Your task to perform on an android device: Is it going to rain tomorrow? Image 0: 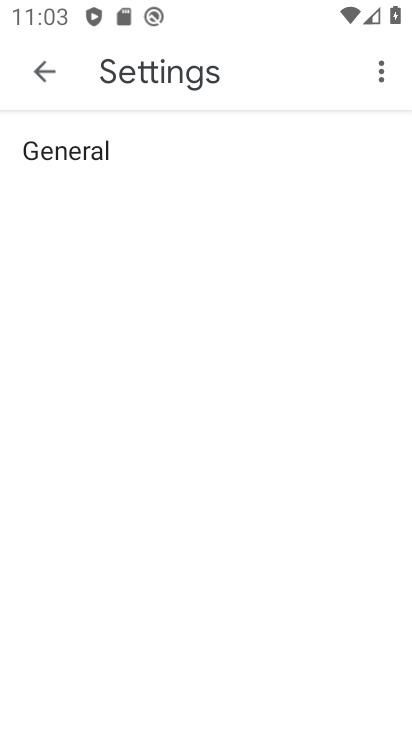
Step 0: press home button
Your task to perform on an android device: Is it going to rain tomorrow? Image 1: 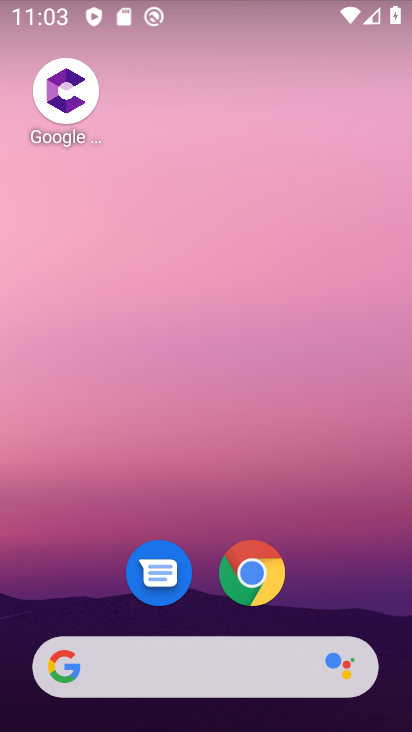
Step 1: click (267, 585)
Your task to perform on an android device: Is it going to rain tomorrow? Image 2: 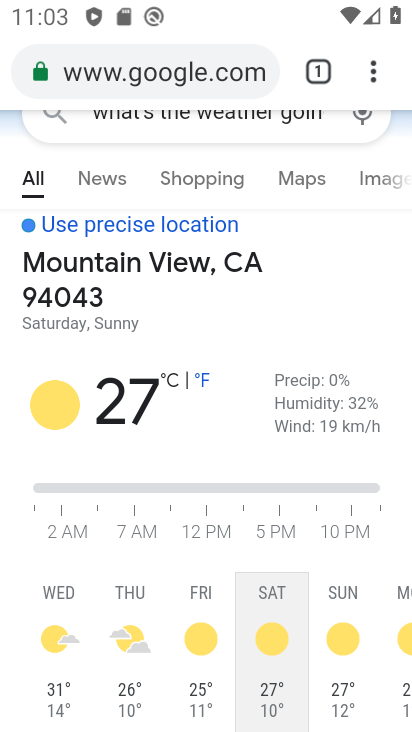
Step 2: click (306, 117)
Your task to perform on an android device: Is it going to rain tomorrow? Image 3: 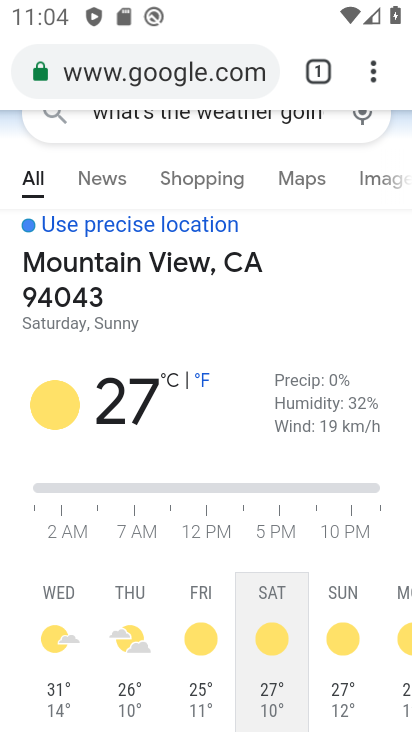
Step 3: click (306, 117)
Your task to perform on an android device: Is it going to rain tomorrow? Image 4: 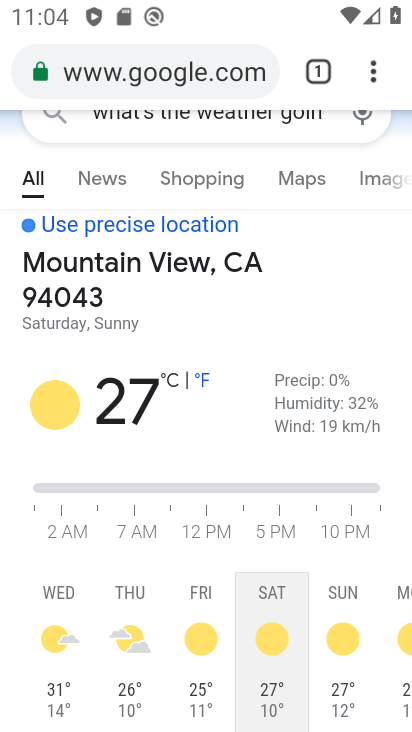
Step 4: click (233, 115)
Your task to perform on an android device: Is it going to rain tomorrow? Image 5: 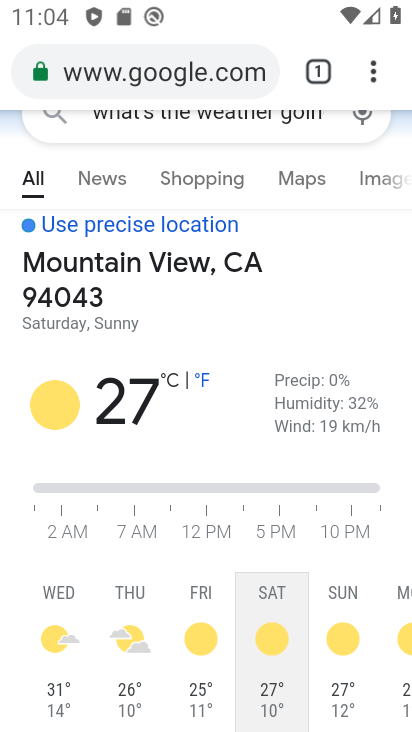
Step 5: drag from (269, 177) to (280, 494)
Your task to perform on an android device: Is it going to rain tomorrow? Image 6: 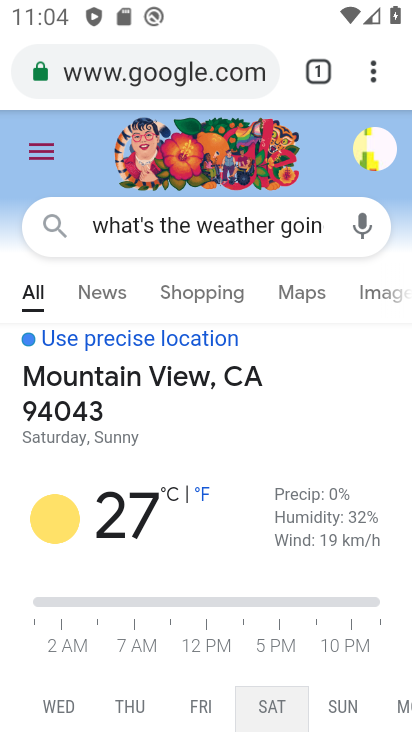
Step 6: click (190, 228)
Your task to perform on an android device: Is it going to rain tomorrow? Image 7: 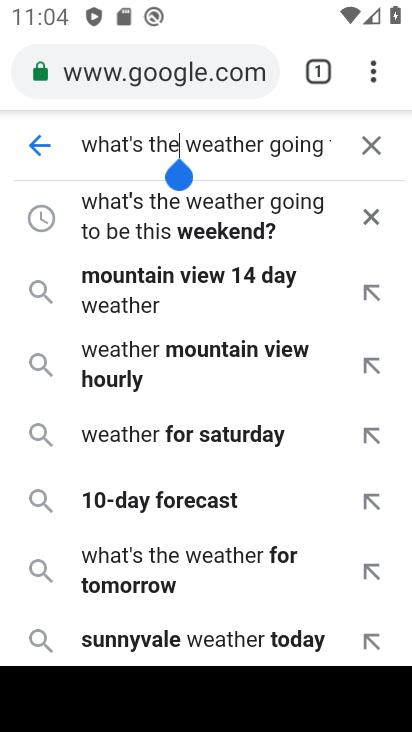
Step 7: click (373, 146)
Your task to perform on an android device: Is it going to rain tomorrow? Image 8: 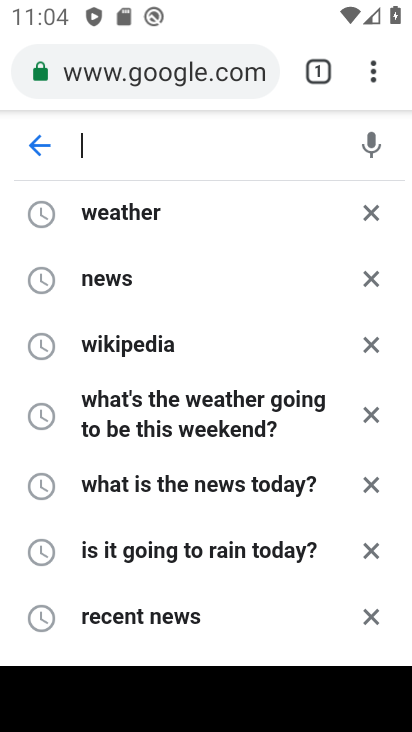
Step 8: type "Is it going to rain tomorrow?"
Your task to perform on an android device: Is it going to rain tomorrow? Image 9: 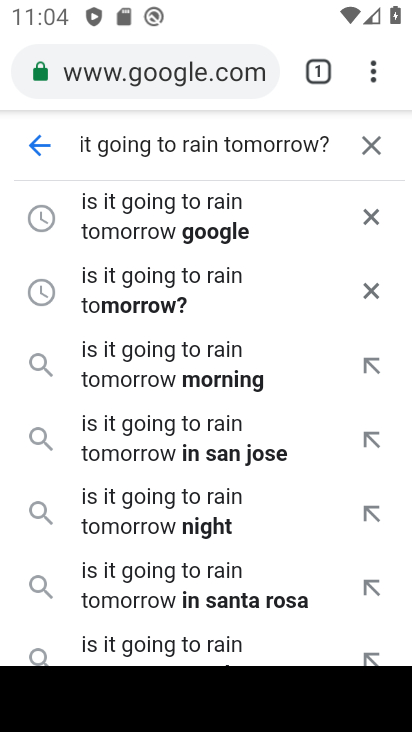
Step 9: click (128, 291)
Your task to perform on an android device: Is it going to rain tomorrow? Image 10: 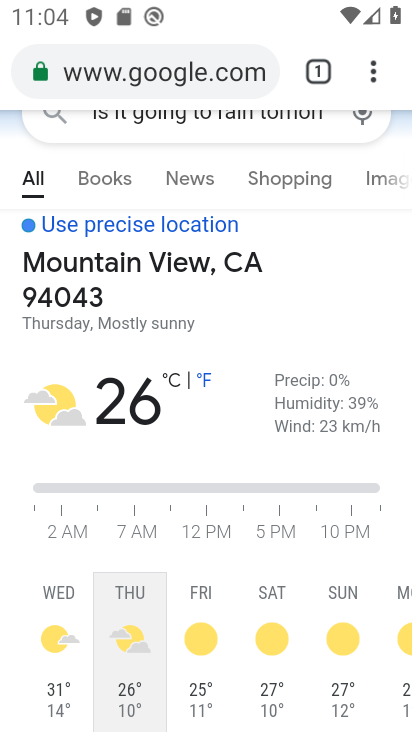
Step 10: drag from (252, 546) to (233, 340)
Your task to perform on an android device: Is it going to rain tomorrow? Image 11: 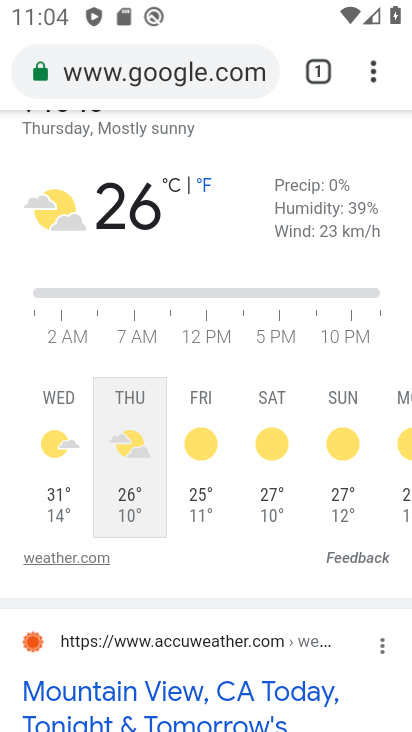
Step 11: click (205, 404)
Your task to perform on an android device: Is it going to rain tomorrow? Image 12: 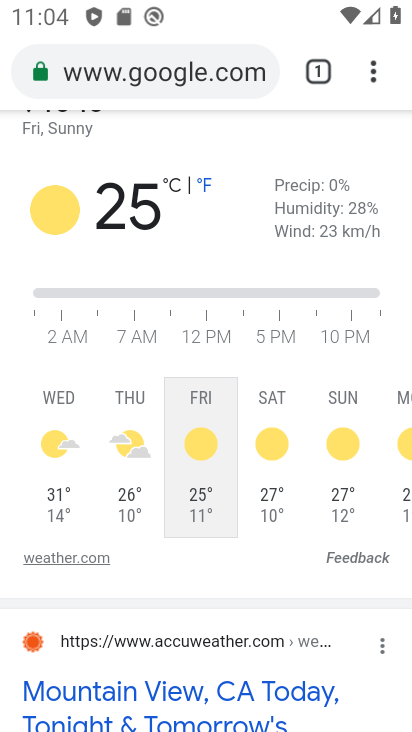
Step 12: task complete